Your task to perform on an android device: delete the emails in spam in the gmail app Image 0: 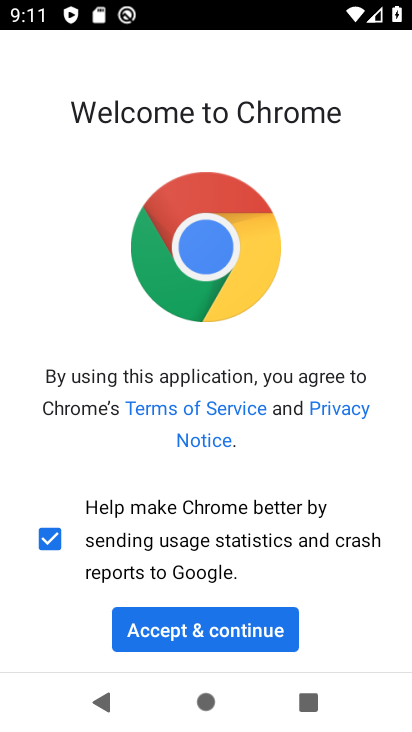
Step 0: press home button
Your task to perform on an android device: delete the emails in spam in the gmail app Image 1: 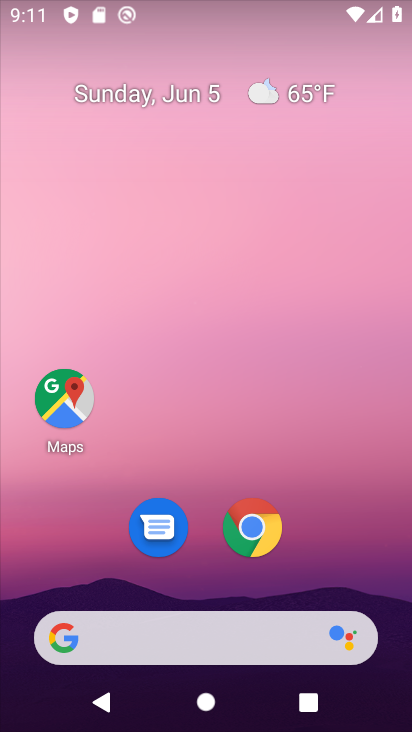
Step 1: drag from (179, 563) to (252, 4)
Your task to perform on an android device: delete the emails in spam in the gmail app Image 2: 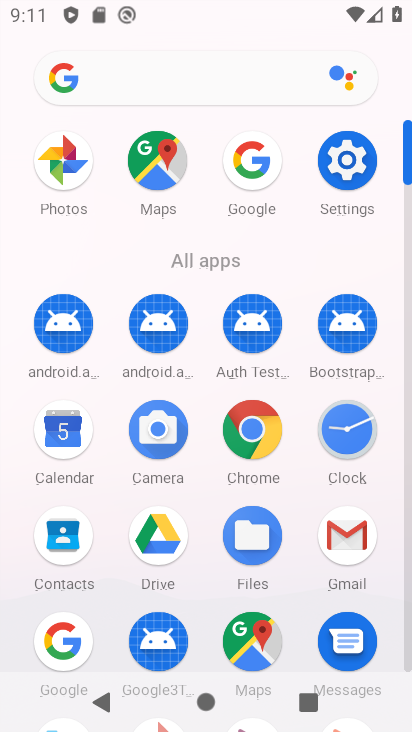
Step 2: click (346, 532)
Your task to perform on an android device: delete the emails in spam in the gmail app Image 3: 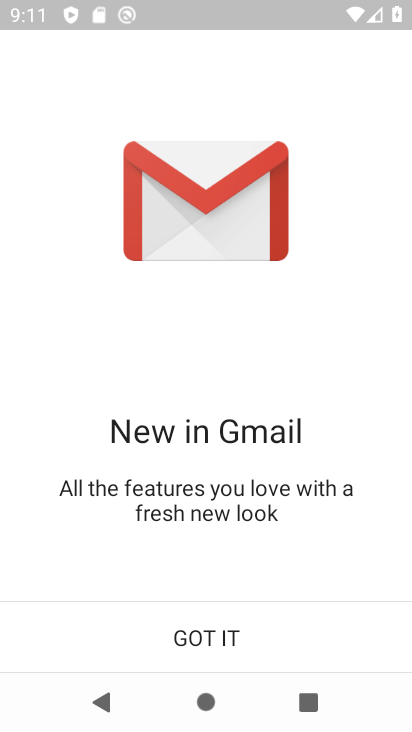
Step 3: click (231, 639)
Your task to perform on an android device: delete the emails in spam in the gmail app Image 4: 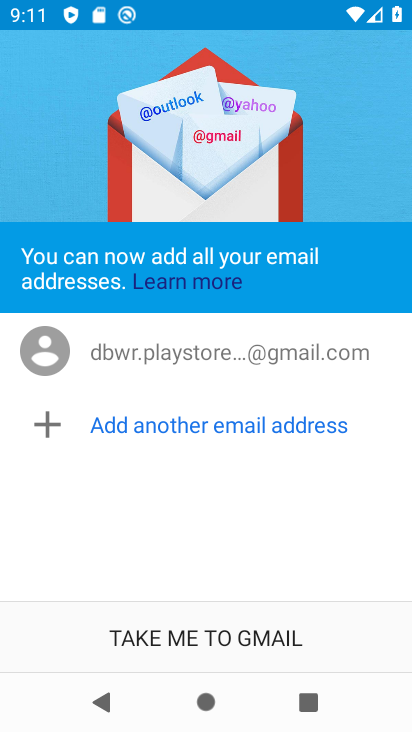
Step 4: click (236, 636)
Your task to perform on an android device: delete the emails in spam in the gmail app Image 5: 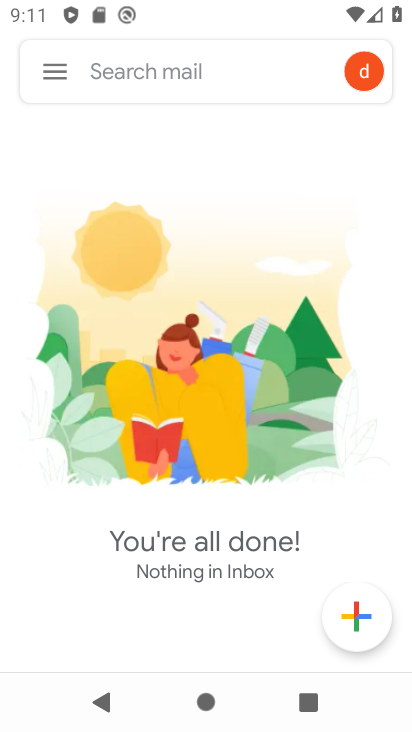
Step 5: click (47, 56)
Your task to perform on an android device: delete the emails in spam in the gmail app Image 6: 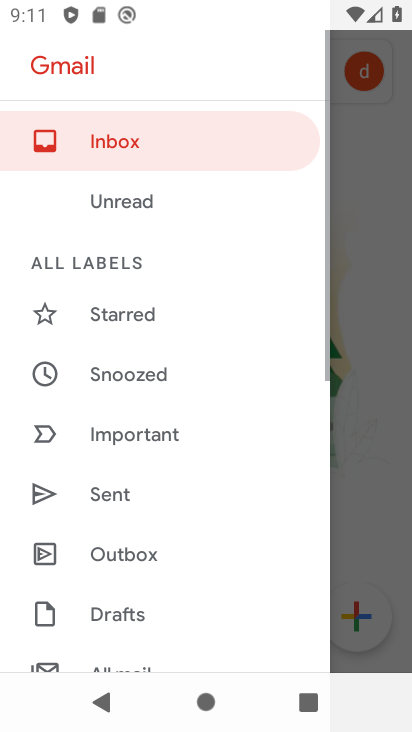
Step 6: drag from (145, 574) to (201, 183)
Your task to perform on an android device: delete the emails in spam in the gmail app Image 7: 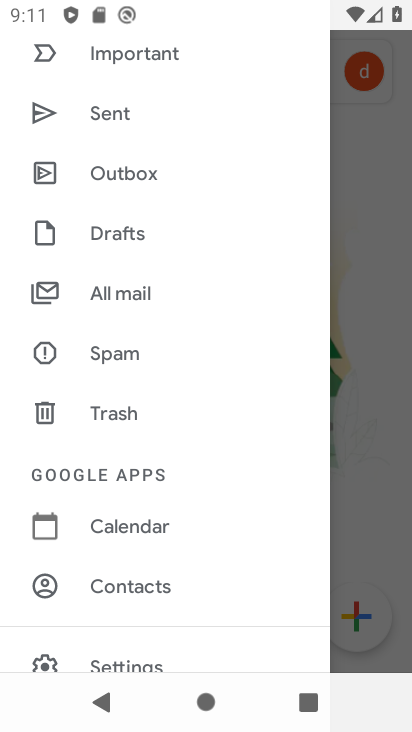
Step 7: click (157, 362)
Your task to perform on an android device: delete the emails in spam in the gmail app Image 8: 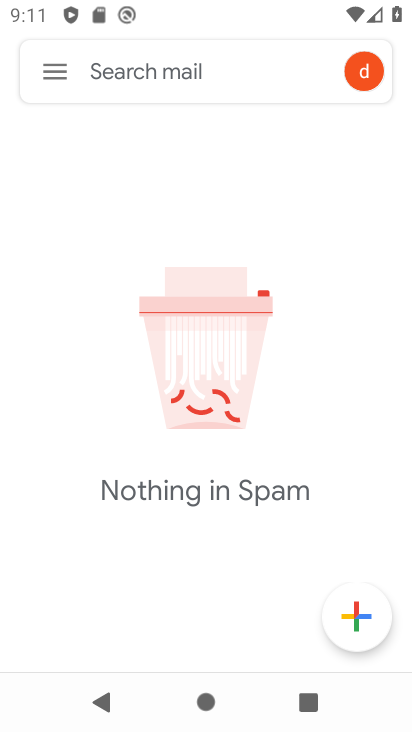
Step 8: task complete